Your task to perform on an android device: allow cookies in the chrome app Image 0: 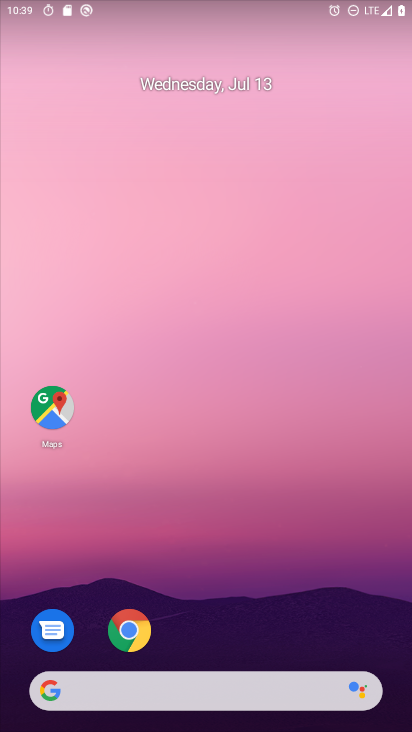
Step 0: drag from (336, 603) to (327, 236)
Your task to perform on an android device: allow cookies in the chrome app Image 1: 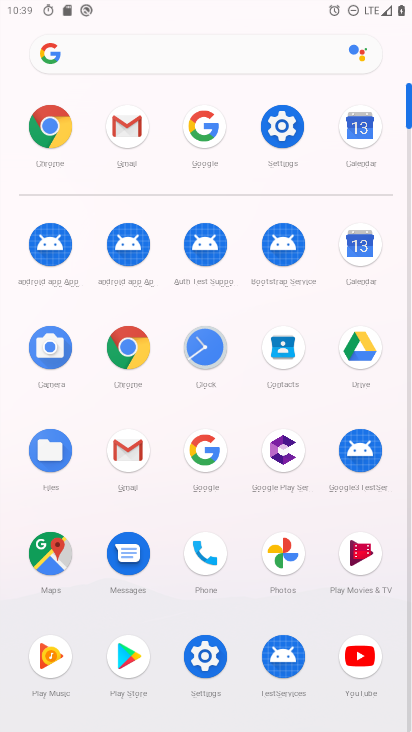
Step 1: click (132, 358)
Your task to perform on an android device: allow cookies in the chrome app Image 2: 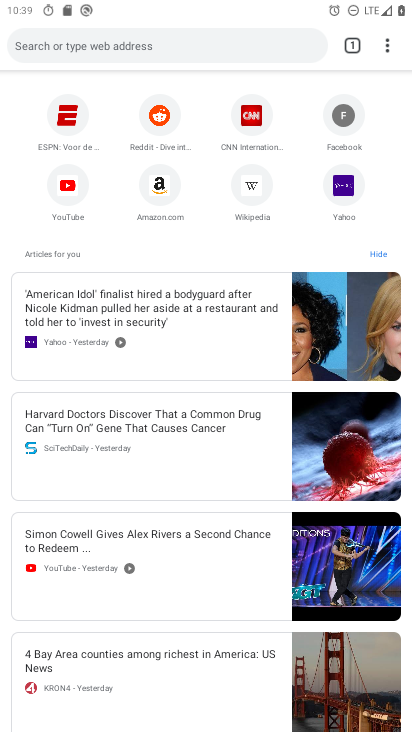
Step 2: click (396, 38)
Your task to perform on an android device: allow cookies in the chrome app Image 3: 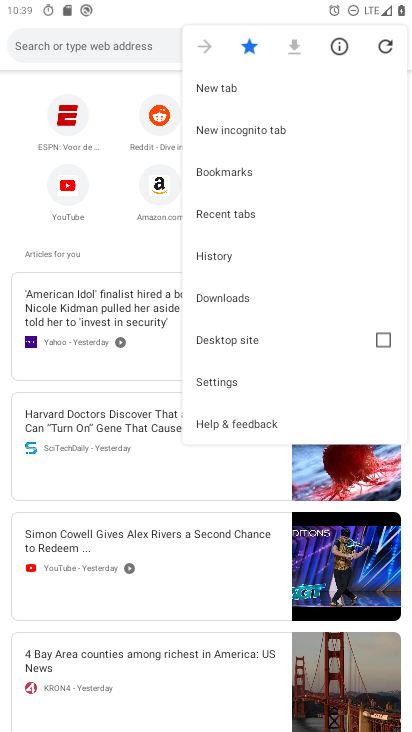
Step 3: click (211, 261)
Your task to perform on an android device: allow cookies in the chrome app Image 4: 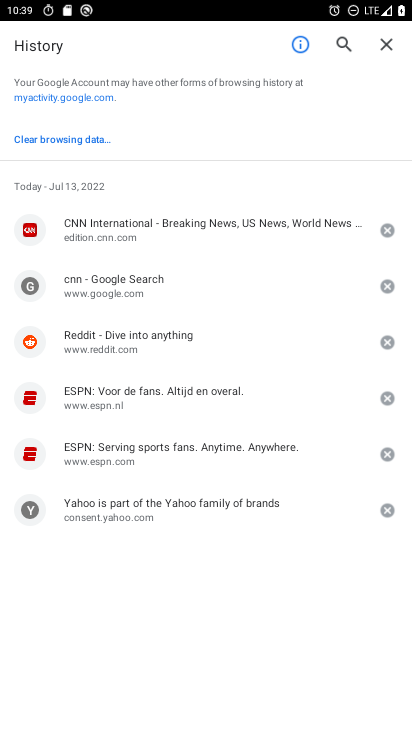
Step 4: click (80, 138)
Your task to perform on an android device: allow cookies in the chrome app Image 5: 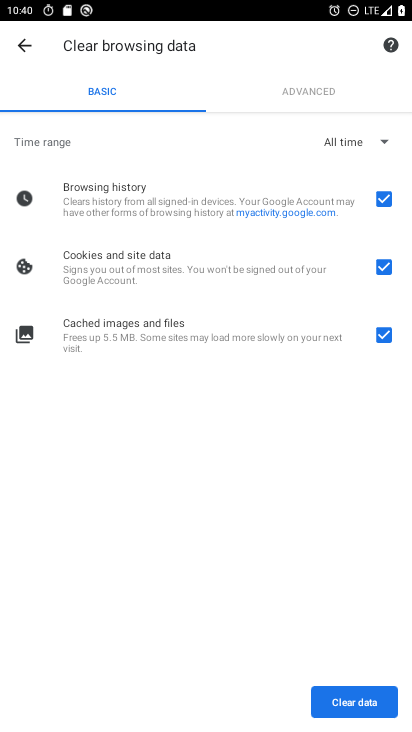
Step 5: task complete